Your task to perform on an android device: search for starred emails in the gmail app Image 0: 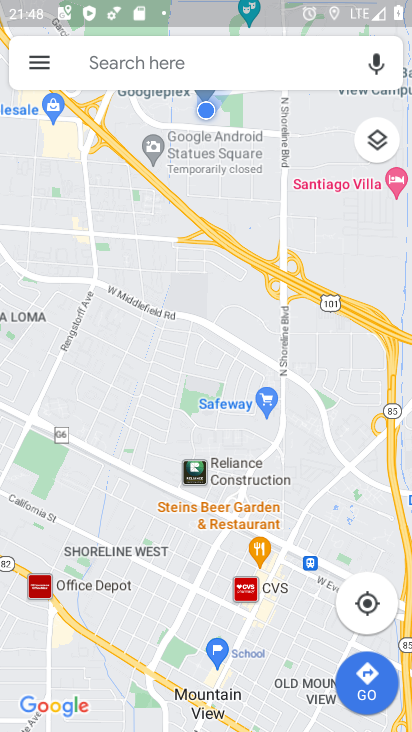
Step 0: press back button
Your task to perform on an android device: search for starred emails in the gmail app Image 1: 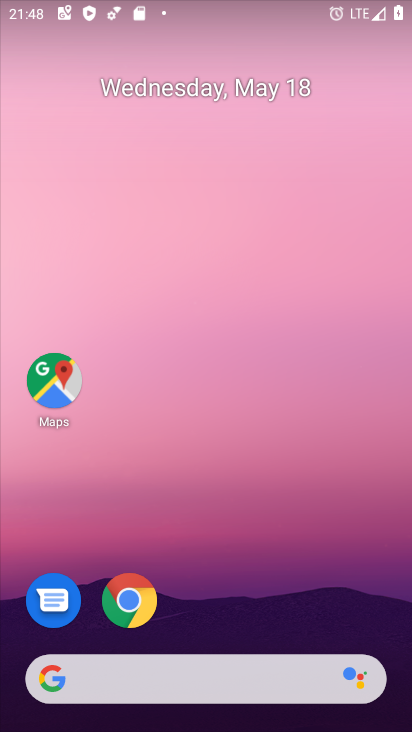
Step 1: drag from (267, 571) to (317, 55)
Your task to perform on an android device: search for starred emails in the gmail app Image 2: 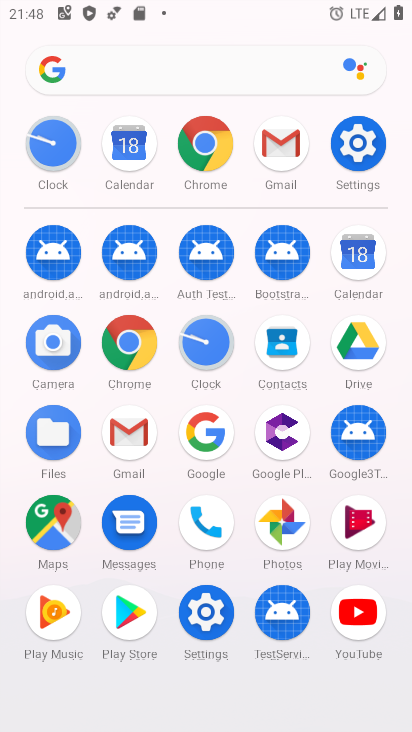
Step 2: click (120, 436)
Your task to perform on an android device: search for starred emails in the gmail app Image 3: 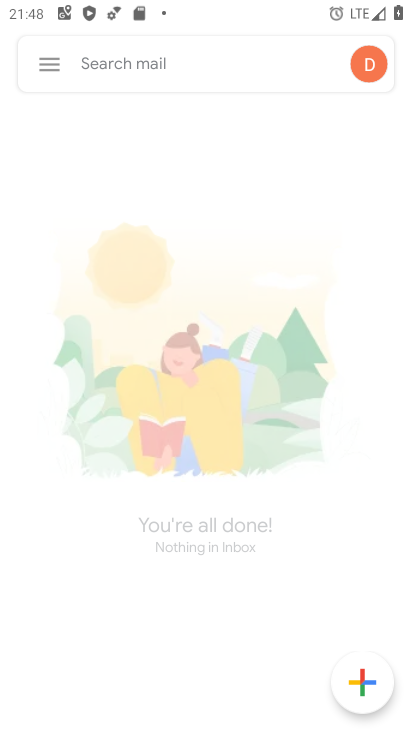
Step 3: click (48, 62)
Your task to perform on an android device: search for starred emails in the gmail app Image 4: 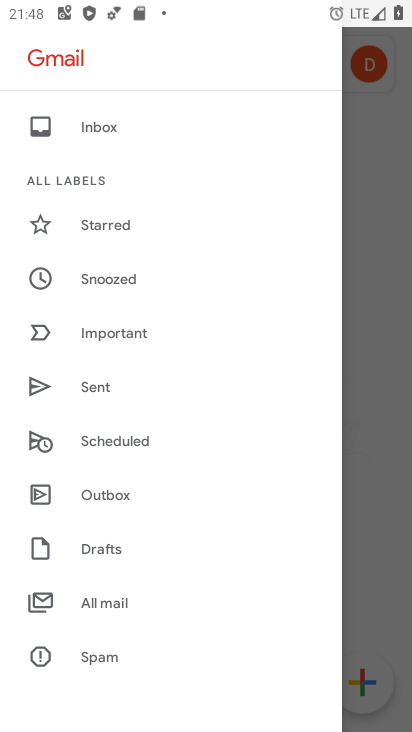
Step 4: click (131, 218)
Your task to perform on an android device: search for starred emails in the gmail app Image 5: 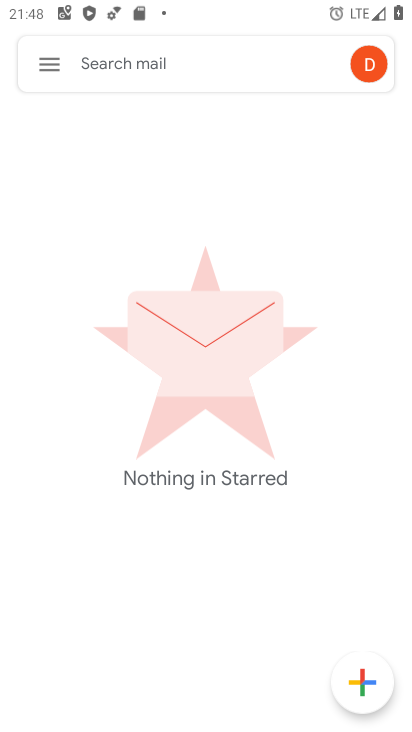
Step 5: task complete